Your task to perform on an android device: Show me popular games on the Play Store Image 0: 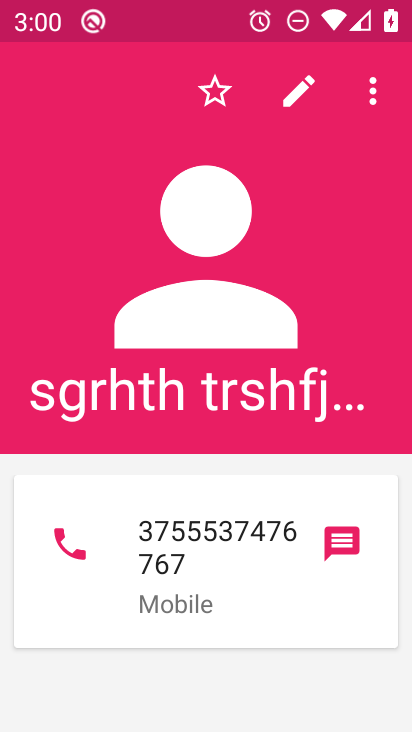
Step 0: press home button
Your task to perform on an android device: Show me popular games on the Play Store Image 1: 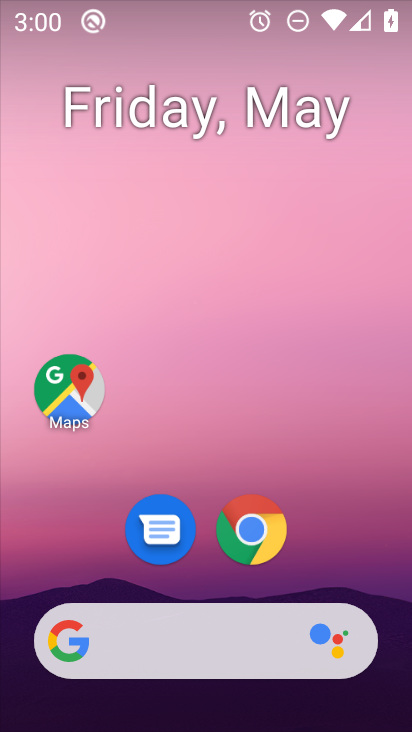
Step 1: drag from (397, 669) to (308, 256)
Your task to perform on an android device: Show me popular games on the Play Store Image 2: 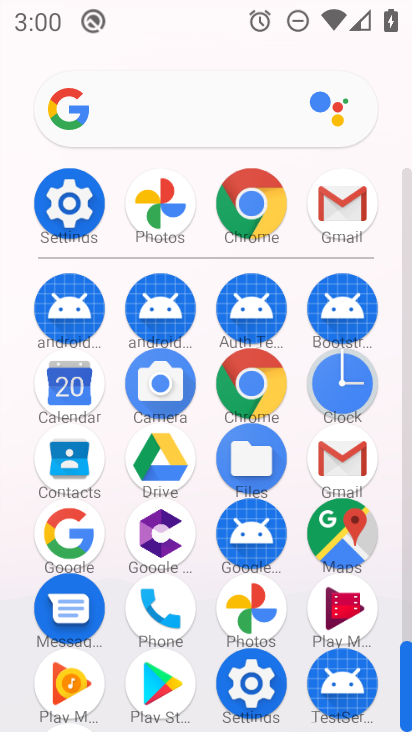
Step 2: click (158, 692)
Your task to perform on an android device: Show me popular games on the Play Store Image 3: 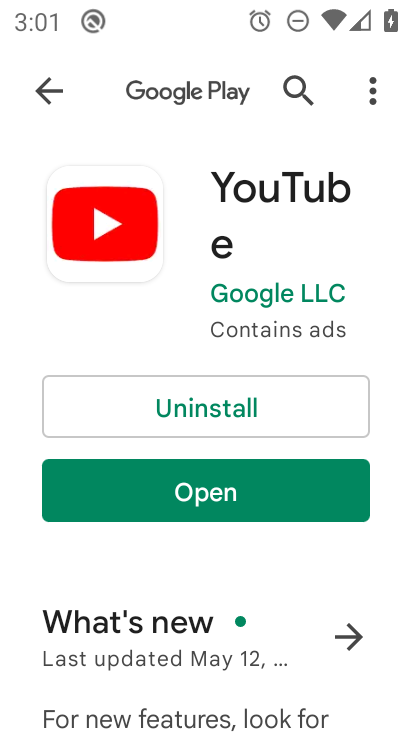
Step 3: click (252, 496)
Your task to perform on an android device: Show me popular games on the Play Store Image 4: 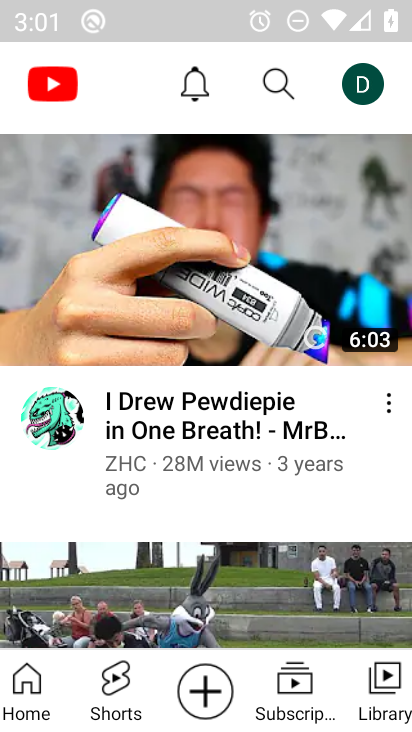
Step 4: click (269, 83)
Your task to perform on an android device: Show me popular games on the Play Store Image 5: 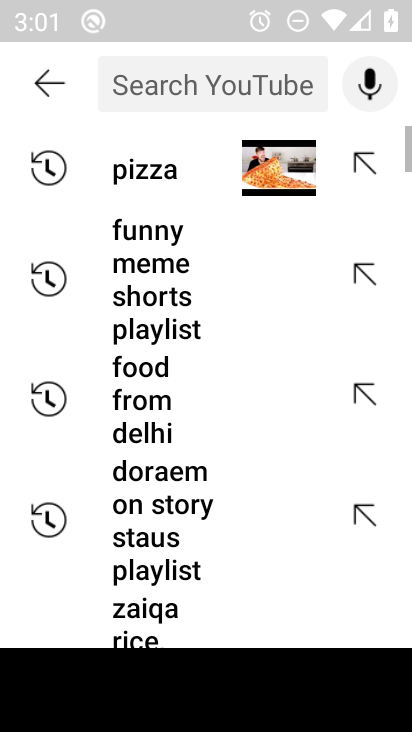
Step 5: click (140, 91)
Your task to perform on an android device: Show me popular games on the Play Store Image 6: 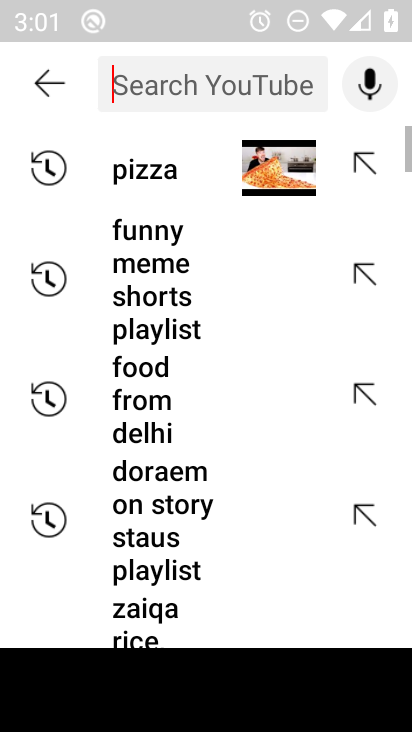
Step 6: click (140, 92)
Your task to perform on an android device: Show me popular games on the Play Store Image 7: 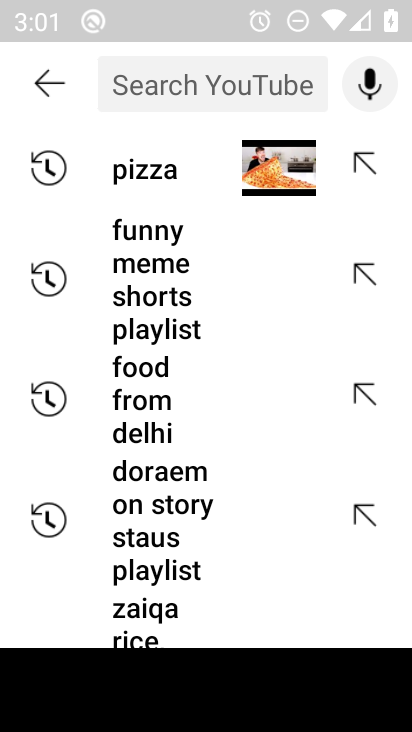
Step 7: click (135, 90)
Your task to perform on an android device: Show me popular games on the Play Store Image 8: 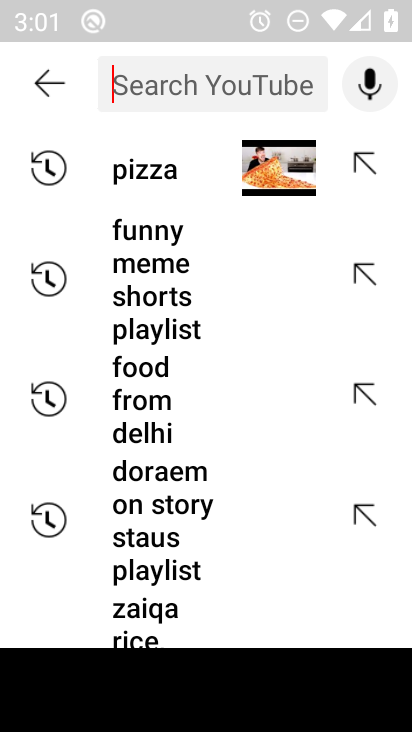
Step 8: click (150, 87)
Your task to perform on an android device: Show me popular games on the Play Store Image 9: 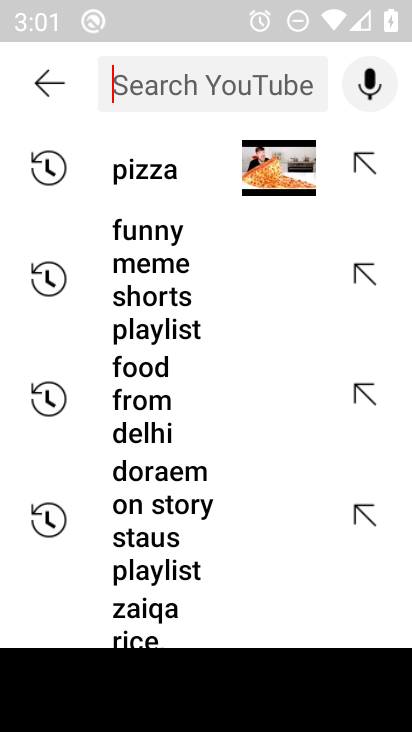
Step 9: click (150, 87)
Your task to perform on an android device: Show me popular games on the Play Store Image 10: 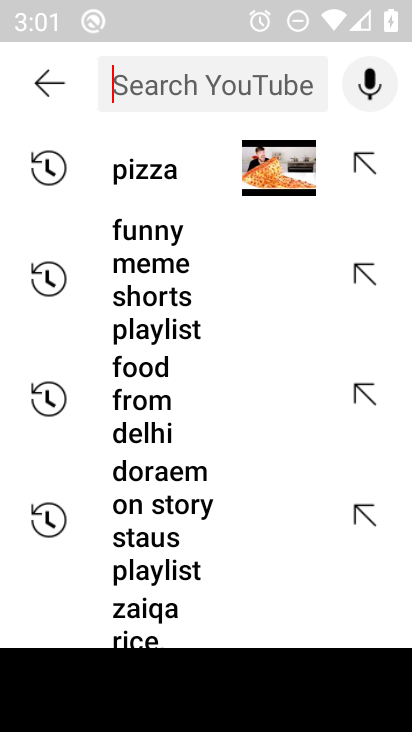
Step 10: type " popular games"
Your task to perform on an android device: Show me popular games on the Play Store Image 11: 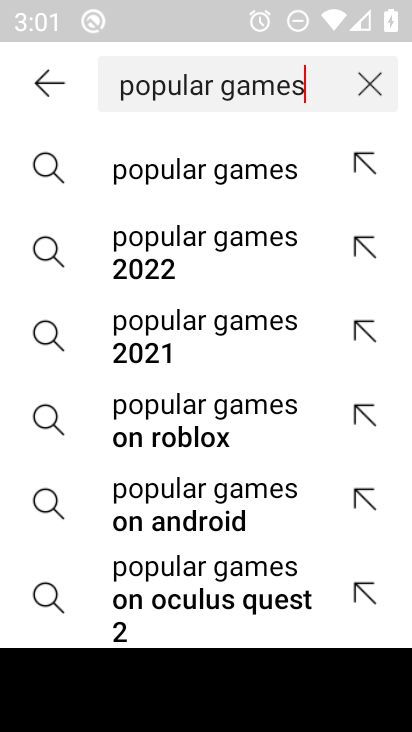
Step 11: click (217, 173)
Your task to perform on an android device: Show me popular games on the Play Store Image 12: 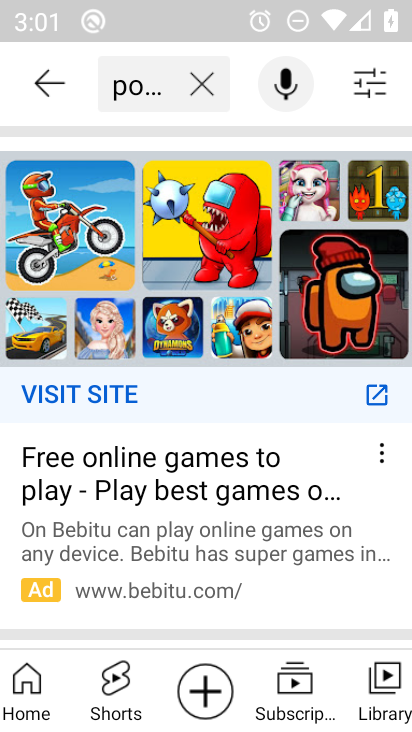
Step 12: task complete